Your task to perform on an android device: When is my next appointment? Image 0: 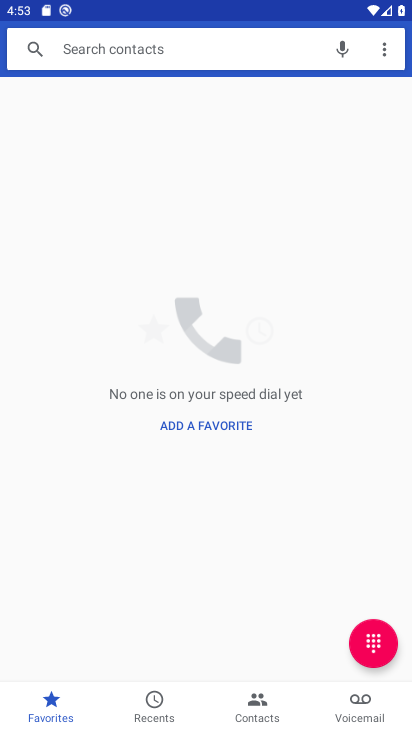
Step 0: press back button
Your task to perform on an android device: When is my next appointment? Image 1: 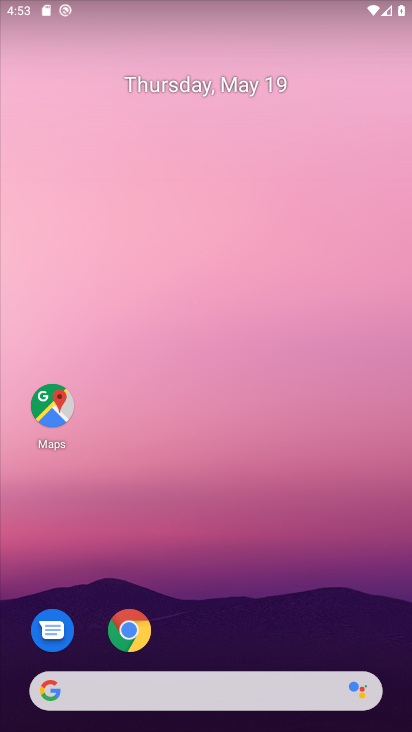
Step 1: drag from (245, 586) to (172, 43)
Your task to perform on an android device: When is my next appointment? Image 2: 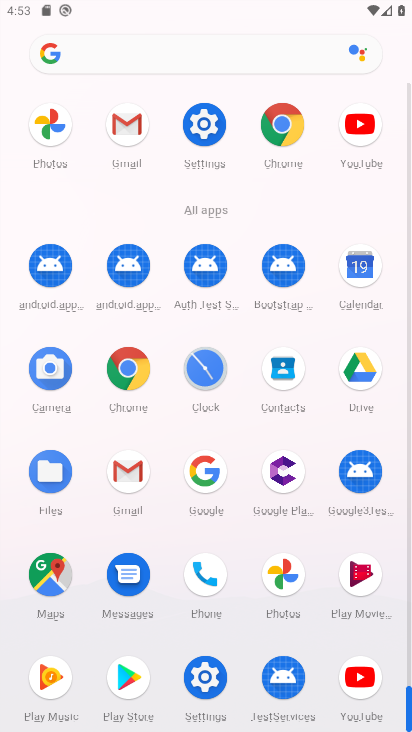
Step 2: drag from (21, 652) to (16, 345)
Your task to perform on an android device: When is my next appointment? Image 3: 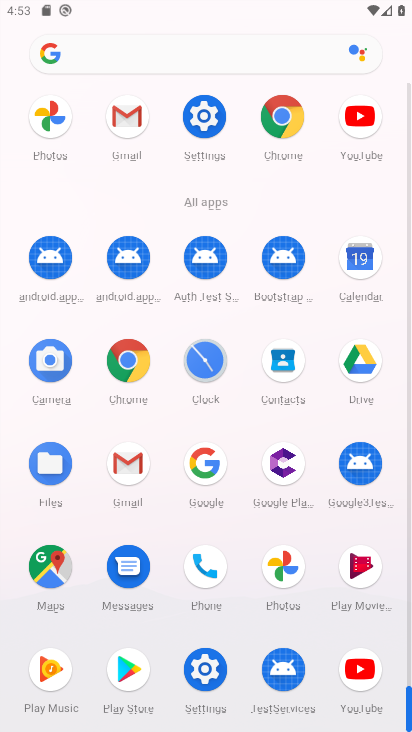
Step 3: click (356, 257)
Your task to perform on an android device: When is my next appointment? Image 4: 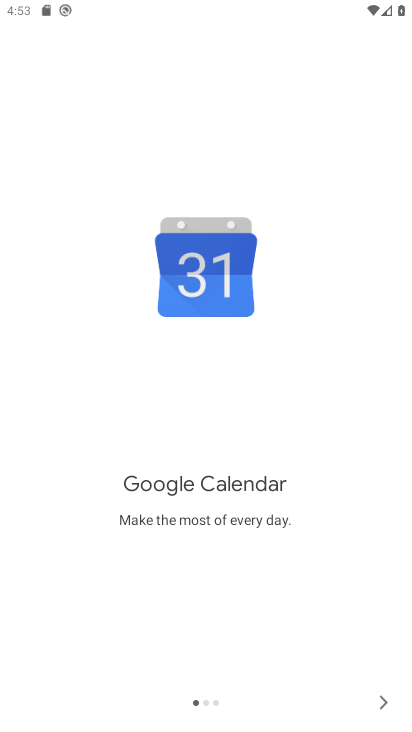
Step 4: click (371, 698)
Your task to perform on an android device: When is my next appointment? Image 5: 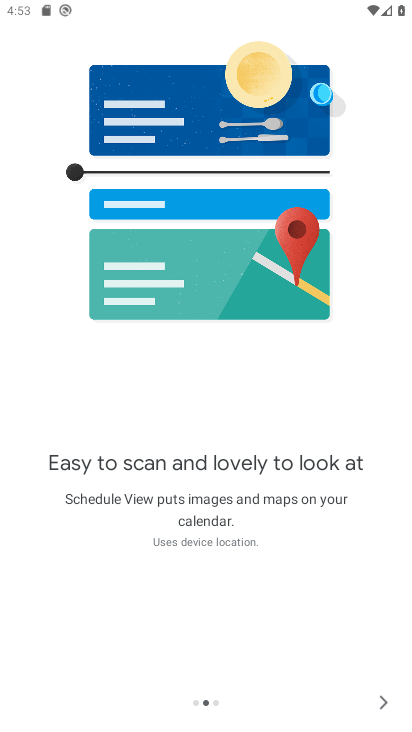
Step 5: click (388, 704)
Your task to perform on an android device: When is my next appointment? Image 6: 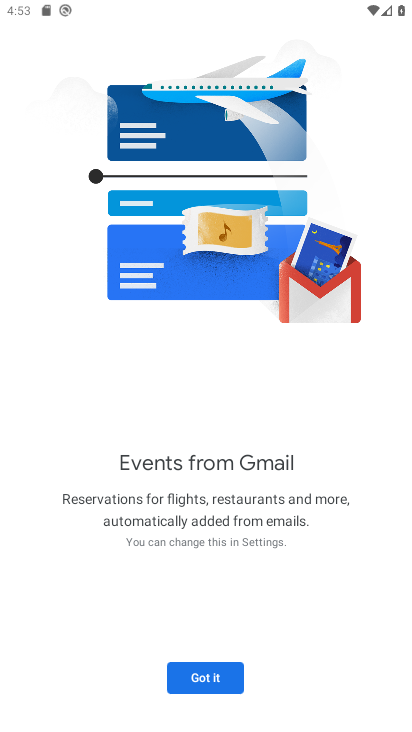
Step 6: click (212, 669)
Your task to perform on an android device: When is my next appointment? Image 7: 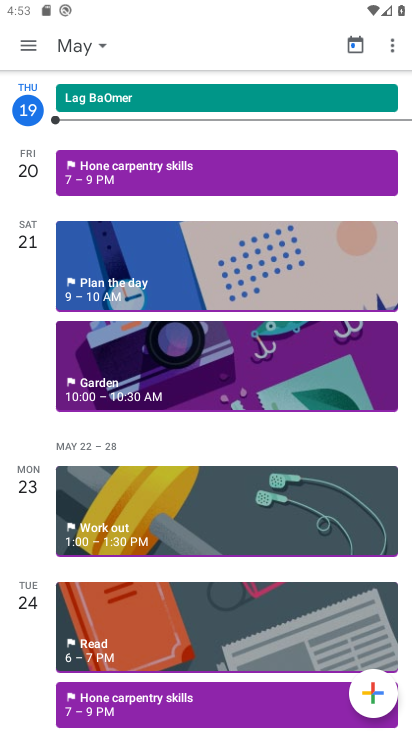
Step 7: click (62, 46)
Your task to perform on an android device: When is my next appointment? Image 8: 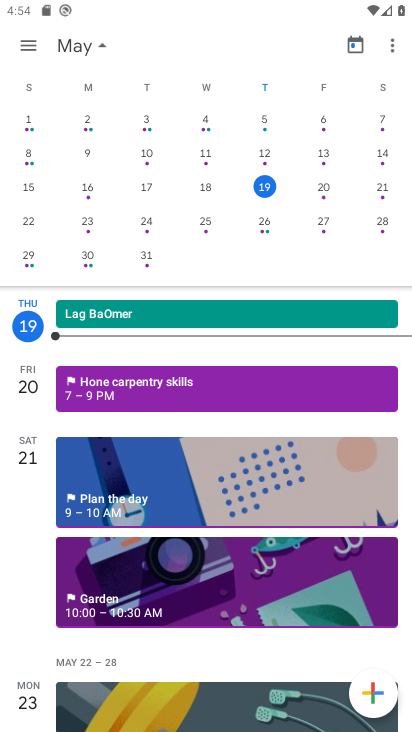
Step 8: click (30, 42)
Your task to perform on an android device: When is my next appointment? Image 9: 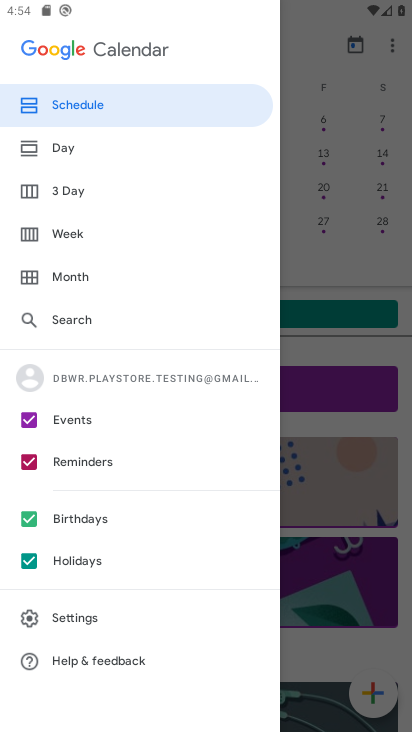
Step 9: click (87, 114)
Your task to perform on an android device: When is my next appointment? Image 10: 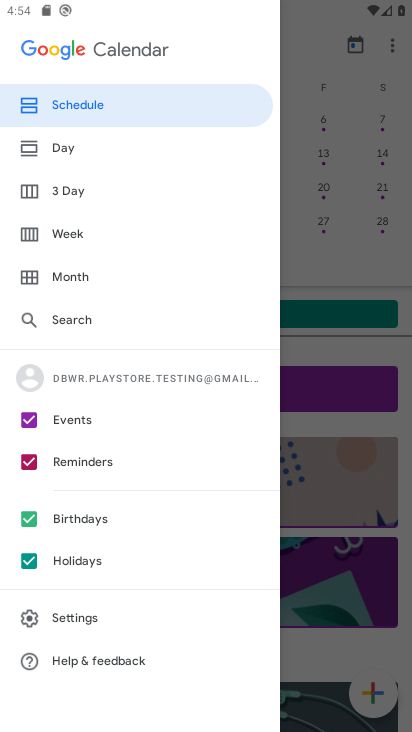
Step 10: click (90, 102)
Your task to perform on an android device: When is my next appointment? Image 11: 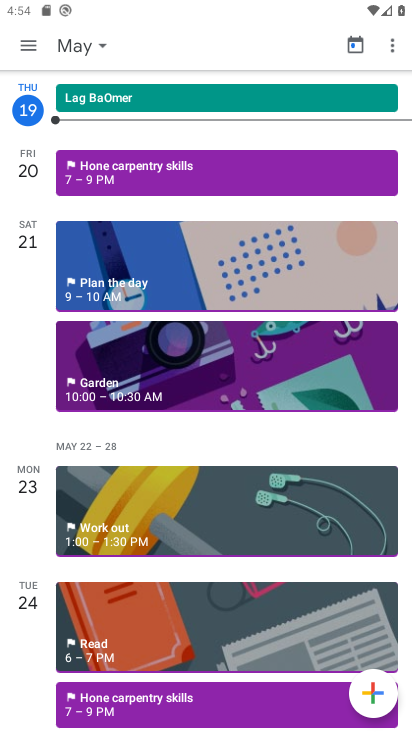
Step 11: click (185, 150)
Your task to perform on an android device: When is my next appointment? Image 12: 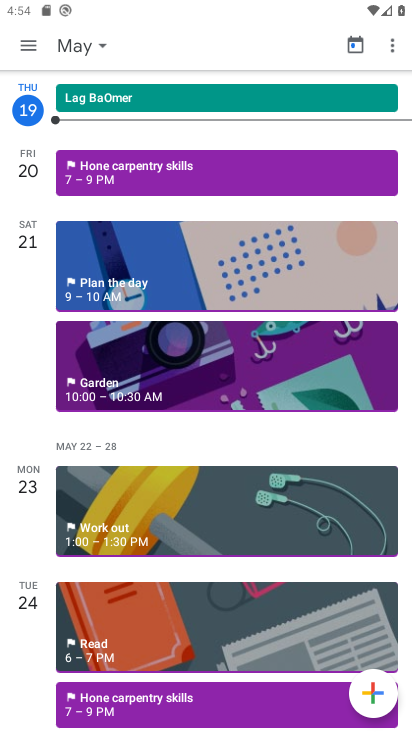
Step 12: task complete